Your task to perform on an android device: add a label to a message in the gmail app Image 0: 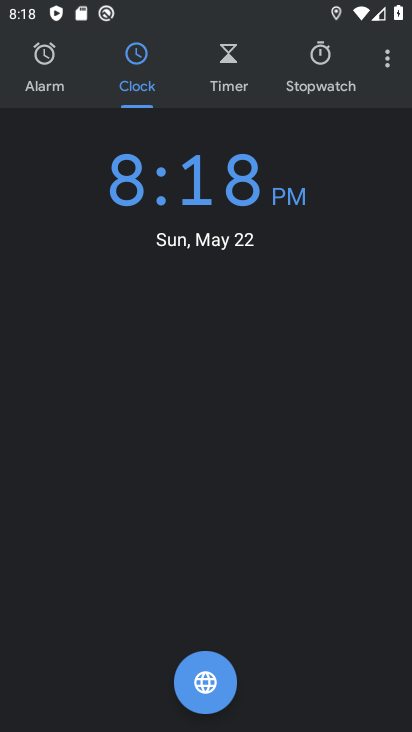
Step 0: press home button
Your task to perform on an android device: add a label to a message in the gmail app Image 1: 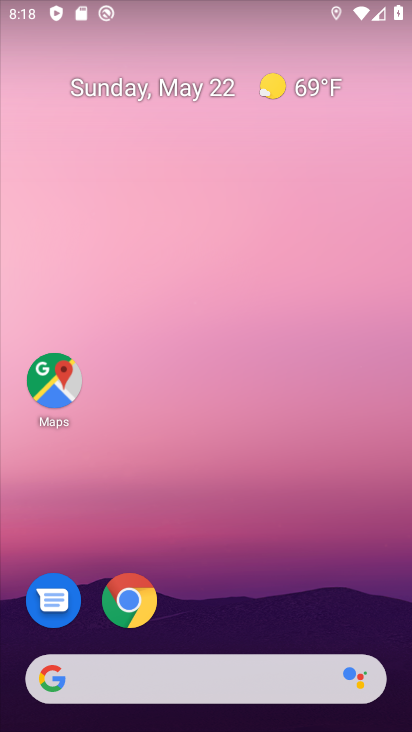
Step 1: drag from (249, 534) to (336, 97)
Your task to perform on an android device: add a label to a message in the gmail app Image 2: 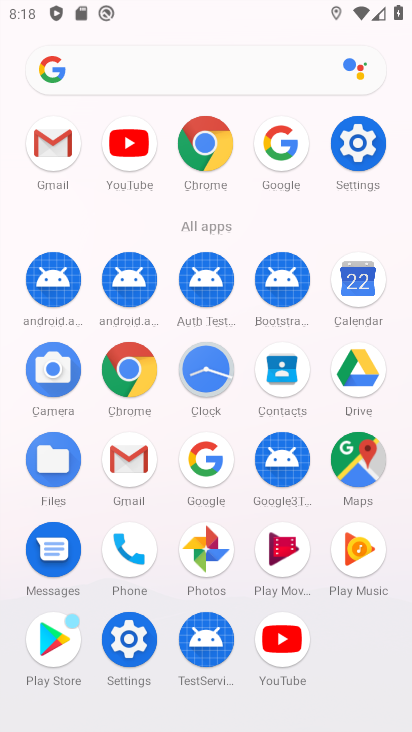
Step 2: click (49, 137)
Your task to perform on an android device: add a label to a message in the gmail app Image 3: 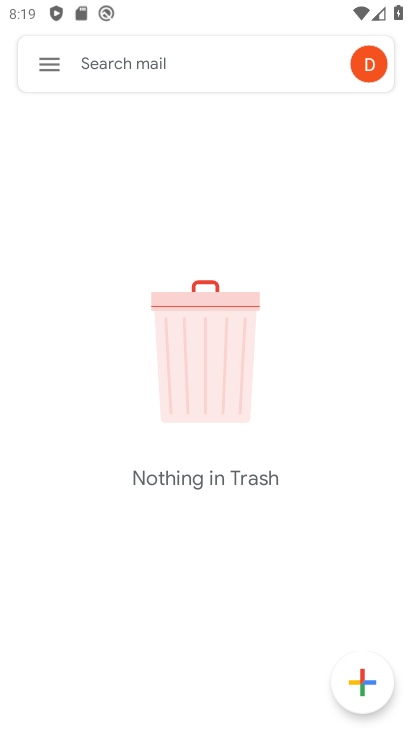
Step 3: click (59, 68)
Your task to perform on an android device: add a label to a message in the gmail app Image 4: 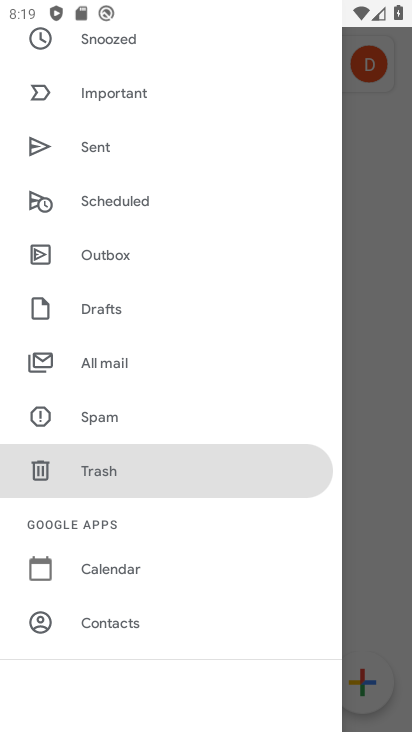
Step 4: click (134, 366)
Your task to perform on an android device: add a label to a message in the gmail app Image 5: 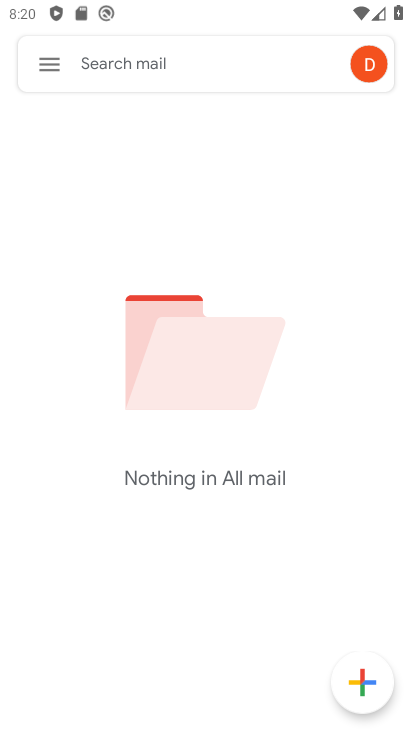
Step 5: task complete